Your task to perform on an android device: allow cookies in the chrome app Image 0: 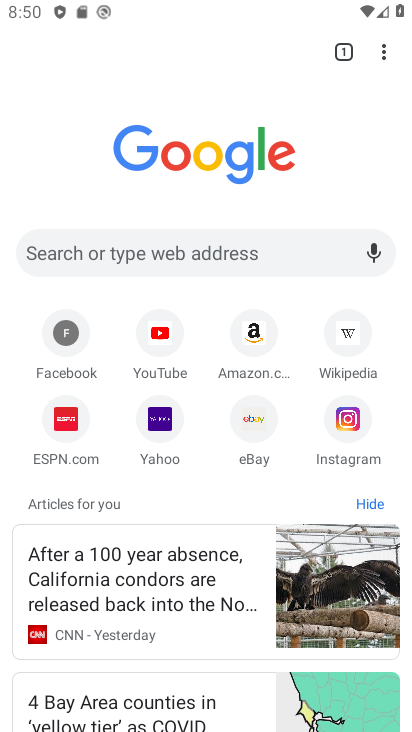
Step 0: click (383, 44)
Your task to perform on an android device: allow cookies in the chrome app Image 1: 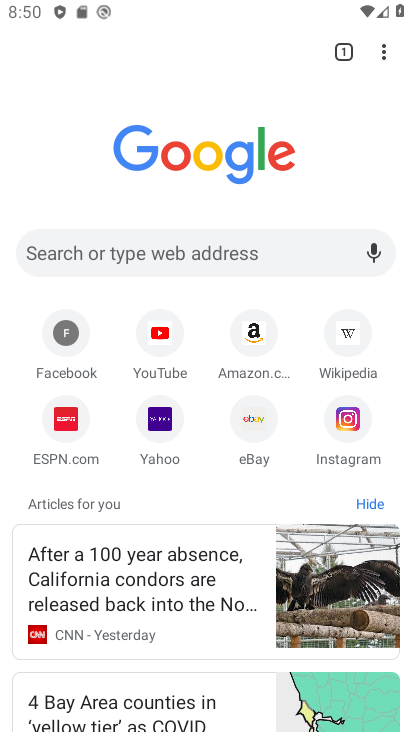
Step 1: drag from (386, 52) to (240, 438)
Your task to perform on an android device: allow cookies in the chrome app Image 2: 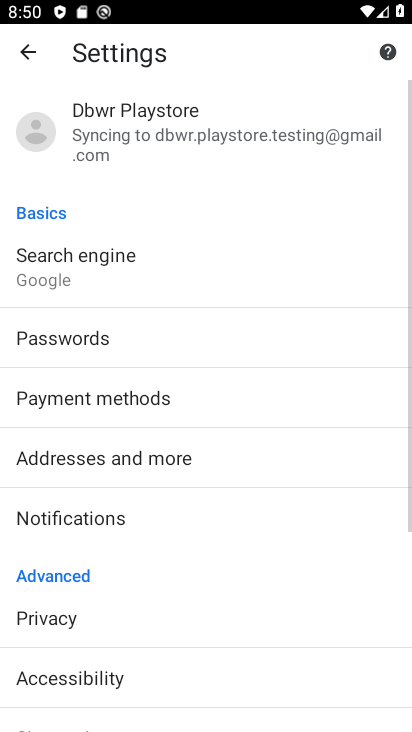
Step 2: drag from (105, 649) to (218, 110)
Your task to perform on an android device: allow cookies in the chrome app Image 3: 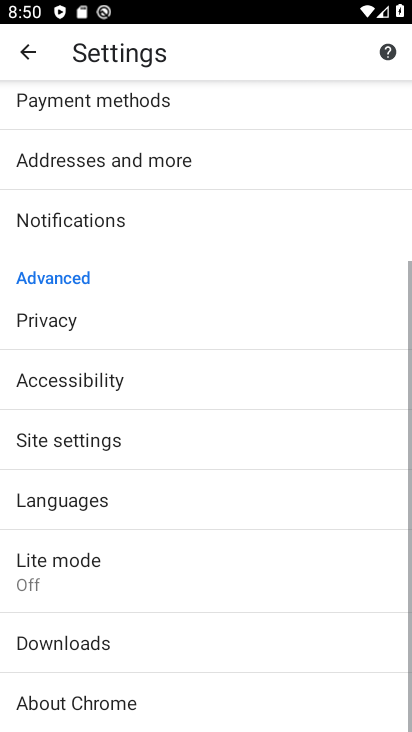
Step 3: click (139, 443)
Your task to perform on an android device: allow cookies in the chrome app Image 4: 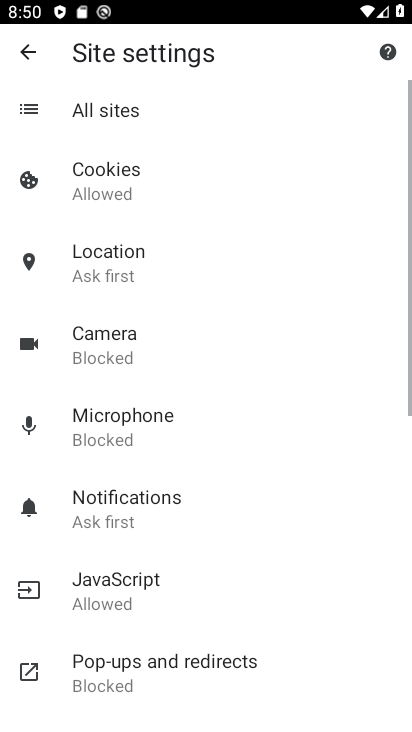
Step 4: click (190, 200)
Your task to perform on an android device: allow cookies in the chrome app Image 5: 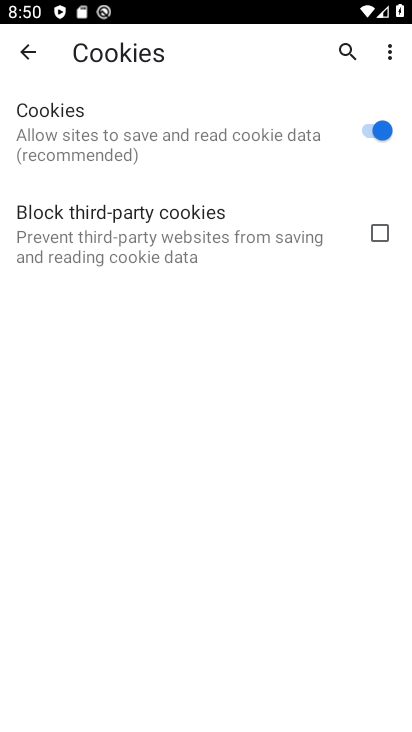
Step 5: task complete